Your task to perform on an android device: see creations saved in the google photos Image 0: 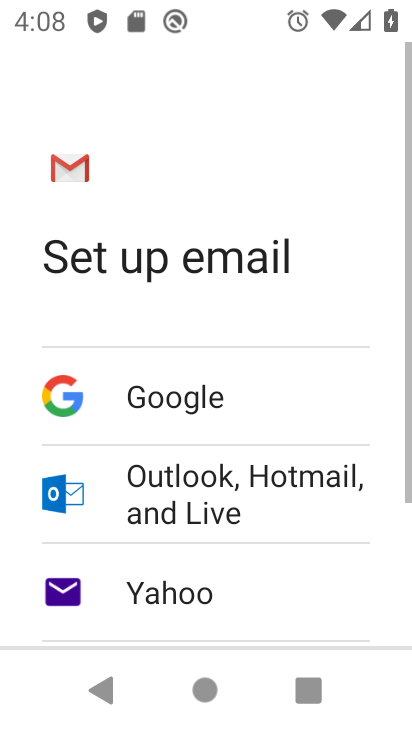
Step 0: press home button
Your task to perform on an android device: see creations saved in the google photos Image 1: 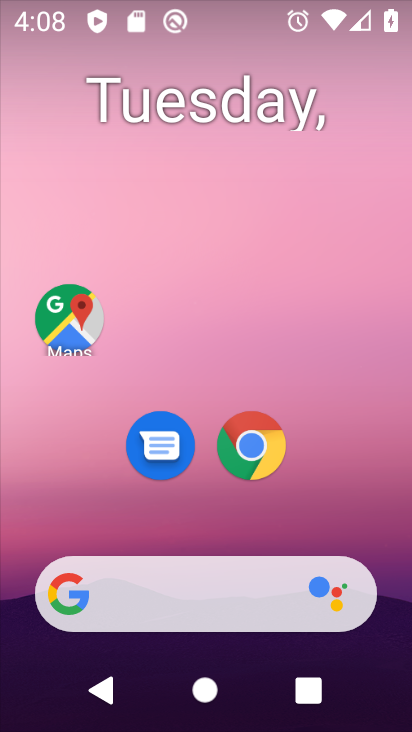
Step 1: drag from (360, 511) to (368, 197)
Your task to perform on an android device: see creations saved in the google photos Image 2: 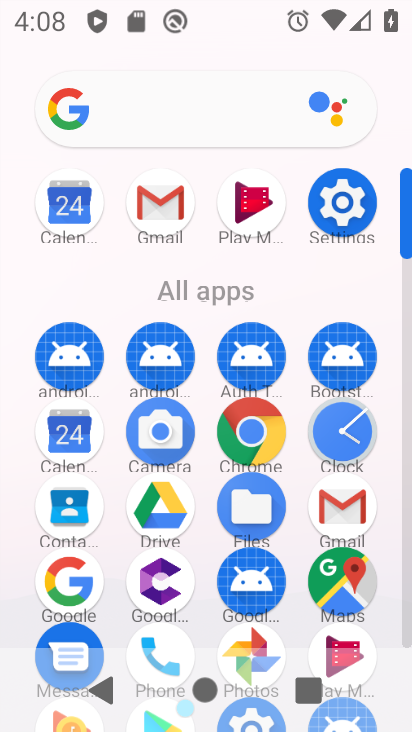
Step 2: click (248, 632)
Your task to perform on an android device: see creations saved in the google photos Image 3: 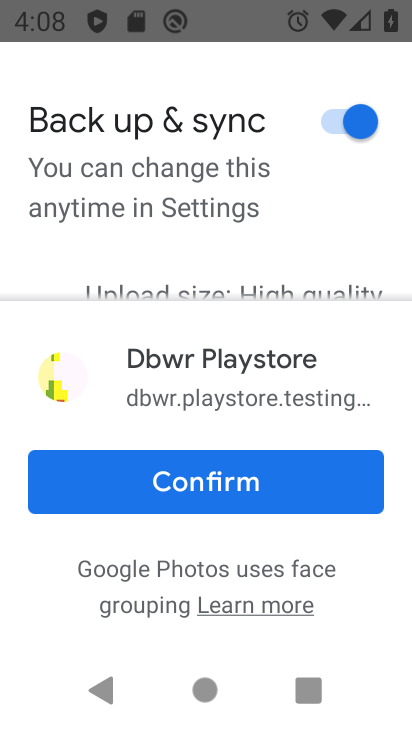
Step 3: click (252, 493)
Your task to perform on an android device: see creations saved in the google photos Image 4: 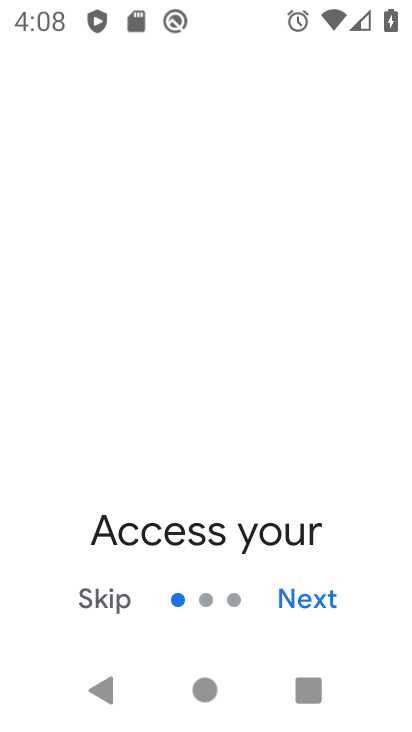
Step 4: click (296, 596)
Your task to perform on an android device: see creations saved in the google photos Image 5: 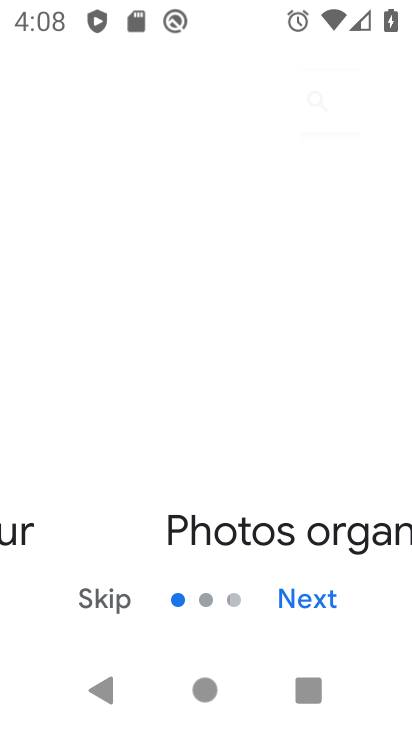
Step 5: click (296, 596)
Your task to perform on an android device: see creations saved in the google photos Image 6: 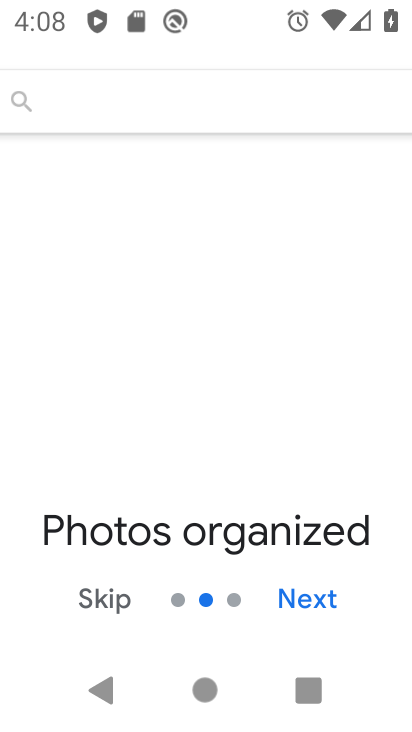
Step 6: click (296, 596)
Your task to perform on an android device: see creations saved in the google photos Image 7: 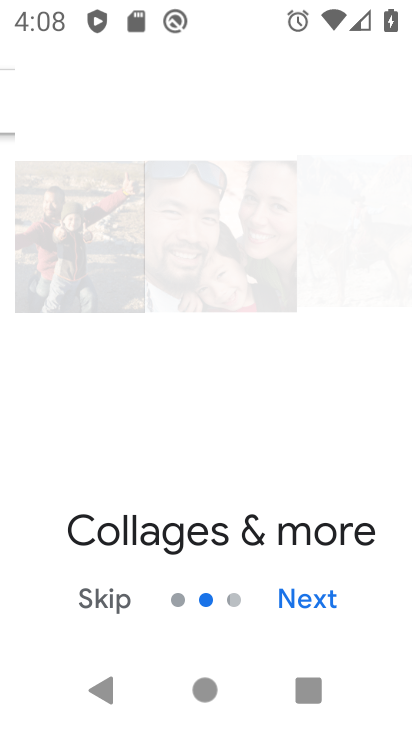
Step 7: click (296, 596)
Your task to perform on an android device: see creations saved in the google photos Image 8: 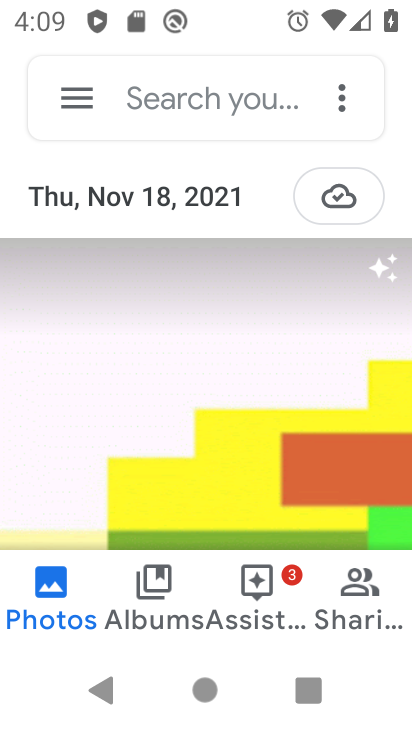
Step 8: click (156, 121)
Your task to perform on an android device: see creations saved in the google photos Image 9: 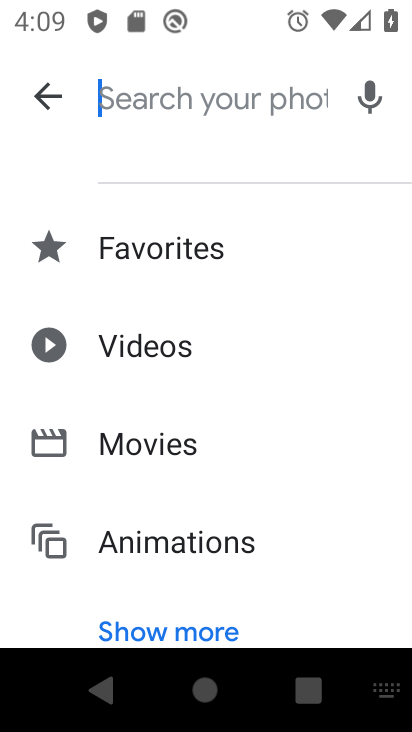
Step 9: click (123, 632)
Your task to perform on an android device: see creations saved in the google photos Image 10: 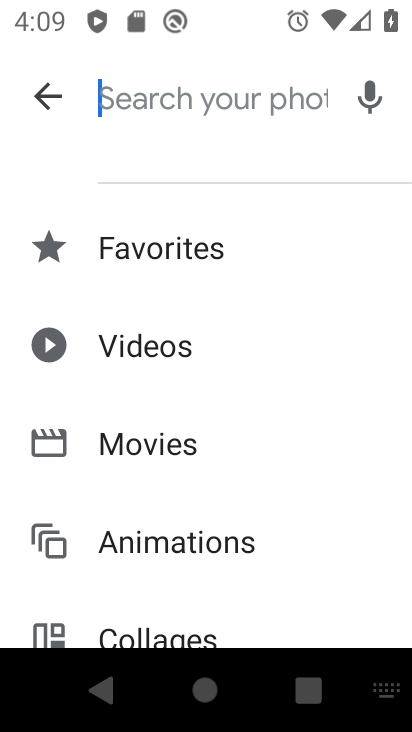
Step 10: drag from (175, 608) to (202, 404)
Your task to perform on an android device: see creations saved in the google photos Image 11: 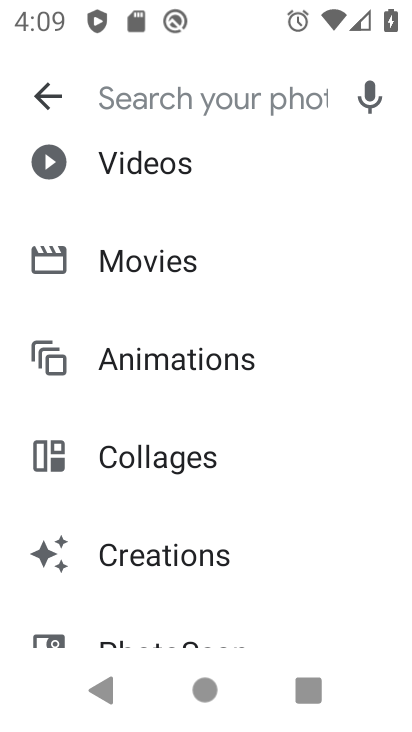
Step 11: click (220, 549)
Your task to perform on an android device: see creations saved in the google photos Image 12: 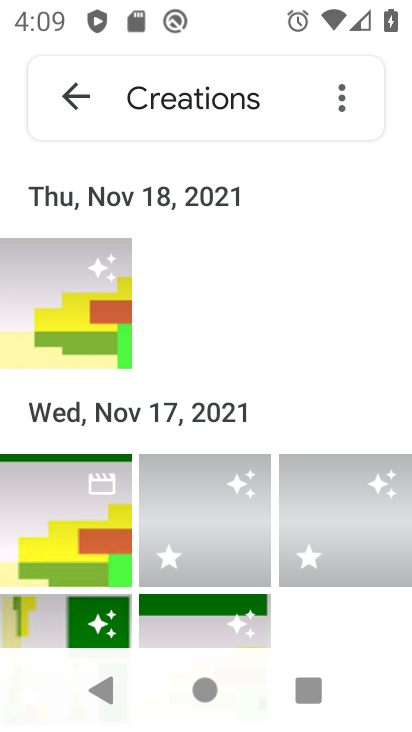
Step 12: task complete